Your task to perform on an android device: check google app version Image 0: 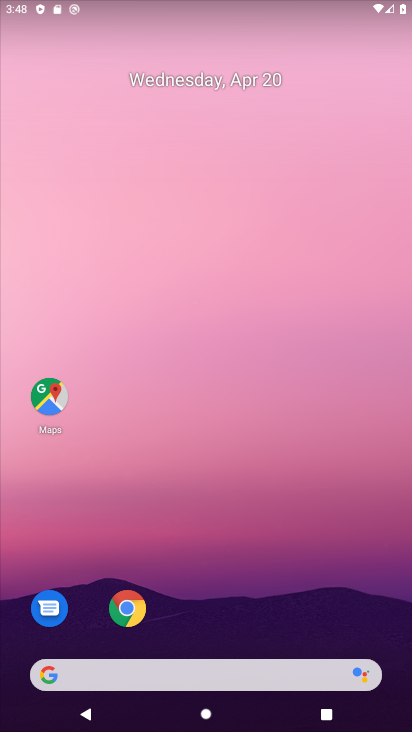
Step 0: drag from (243, 693) to (272, 16)
Your task to perform on an android device: check google app version Image 1: 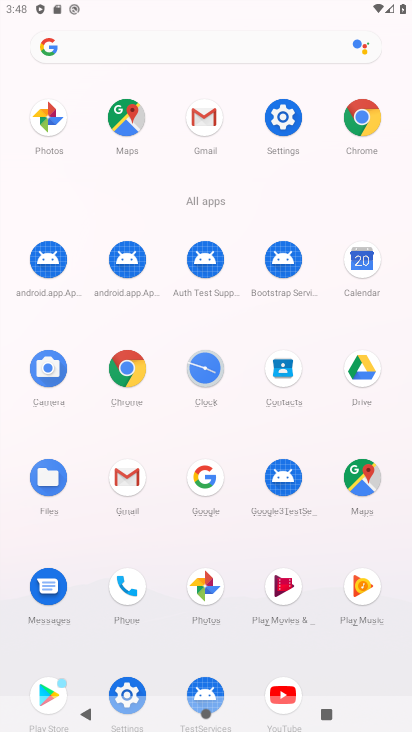
Step 1: click (128, 364)
Your task to perform on an android device: check google app version Image 2: 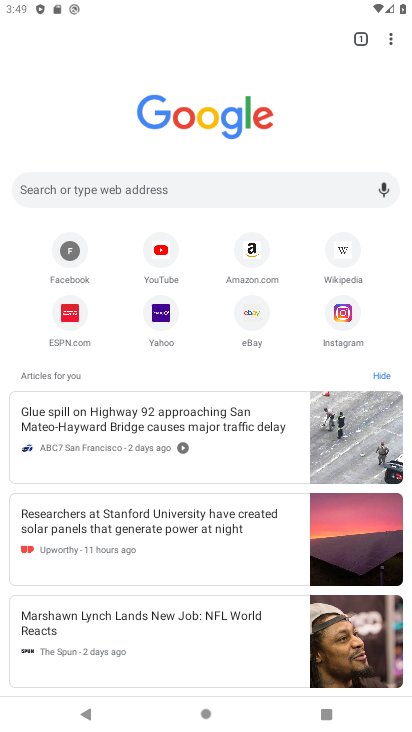
Step 2: click (389, 38)
Your task to perform on an android device: check google app version Image 3: 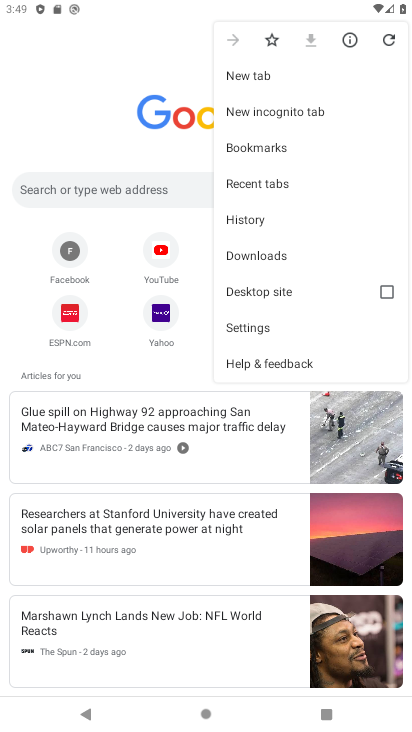
Step 3: click (251, 319)
Your task to perform on an android device: check google app version Image 4: 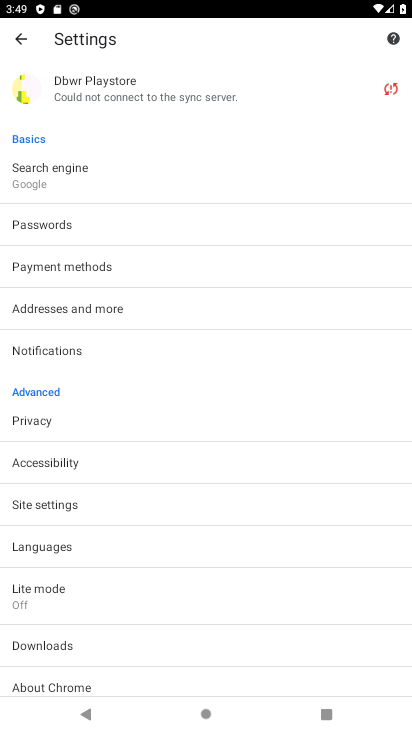
Step 4: click (31, 675)
Your task to perform on an android device: check google app version Image 5: 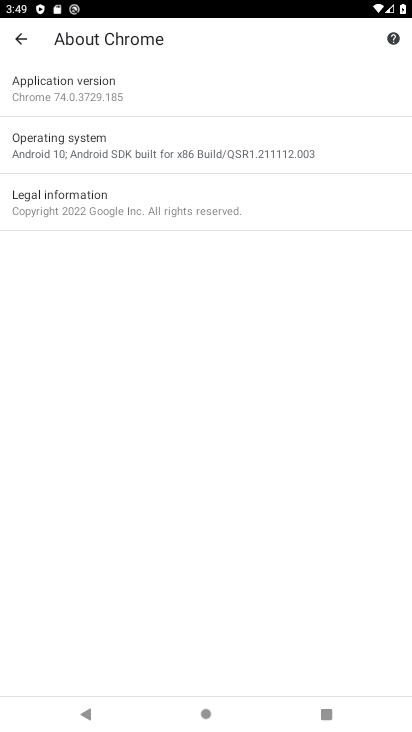
Step 5: click (105, 90)
Your task to perform on an android device: check google app version Image 6: 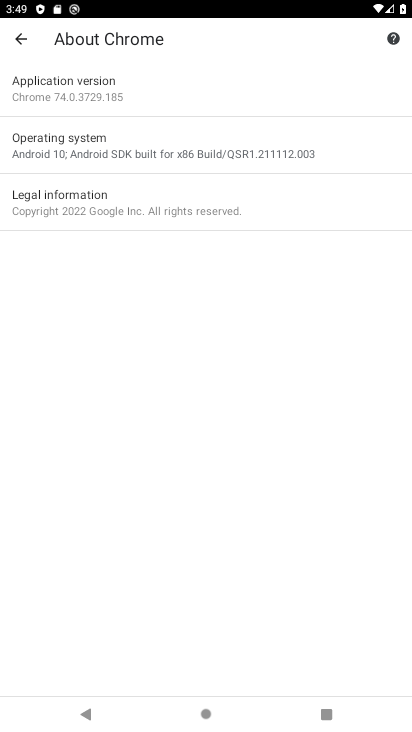
Step 6: task complete